Your task to perform on an android device: Search for 3d printer on AliExpress Image 0: 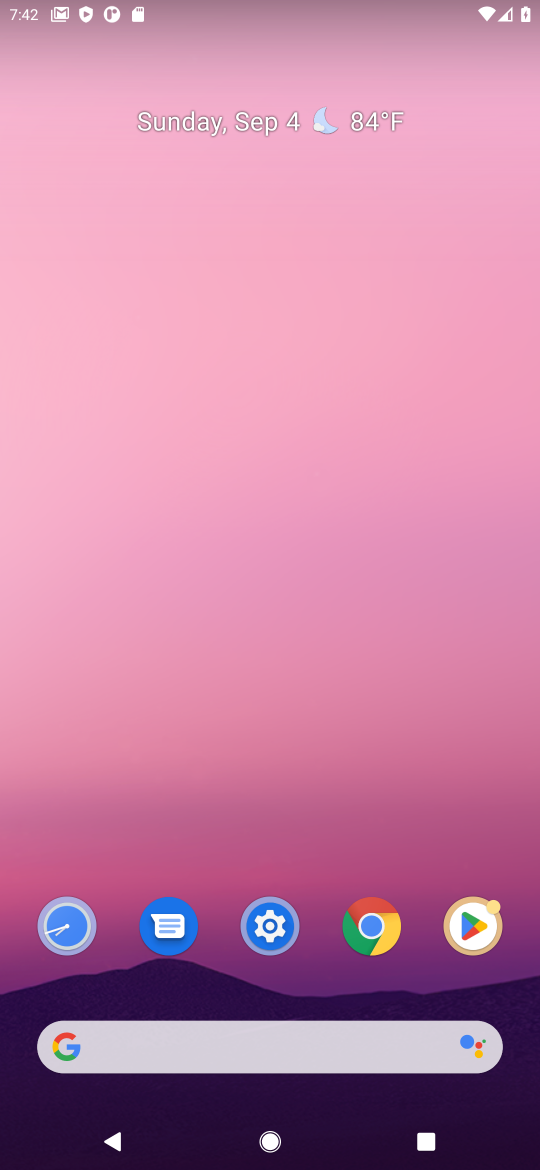
Step 0: click (294, 1039)
Your task to perform on an android device: Search for 3d printer on AliExpress Image 1: 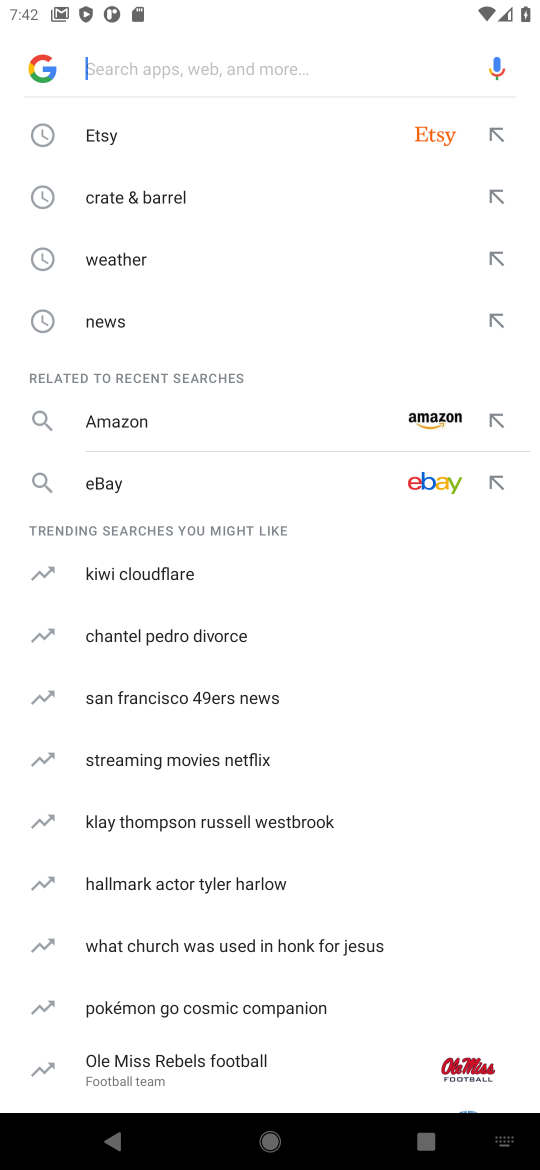
Step 1: type "aliexpress"
Your task to perform on an android device: Search for 3d printer on AliExpress Image 2: 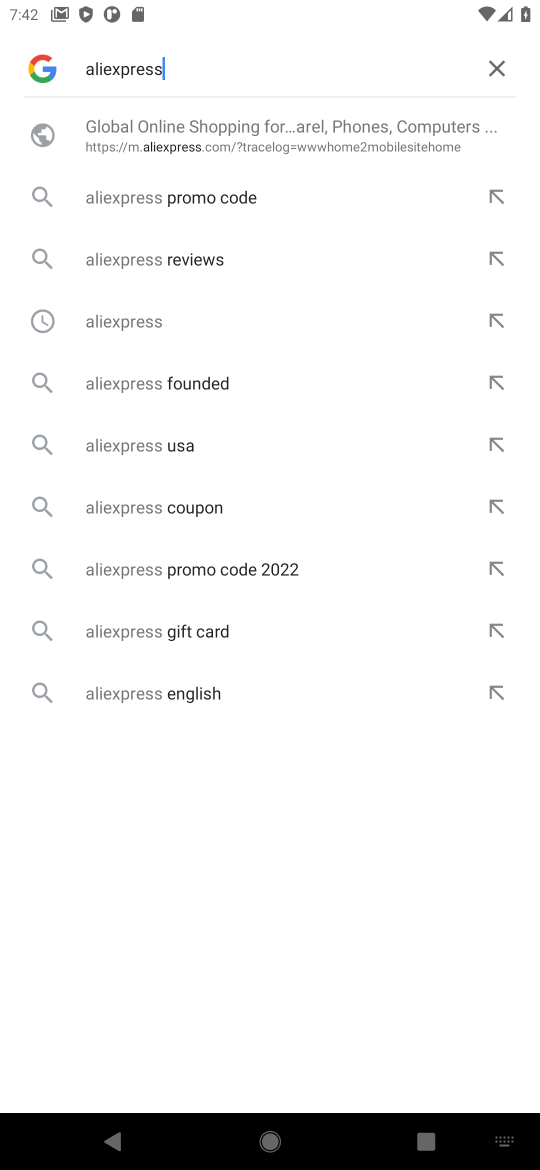
Step 2: click (135, 308)
Your task to perform on an android device: Search for 3d printer on AliExpress Image 3: 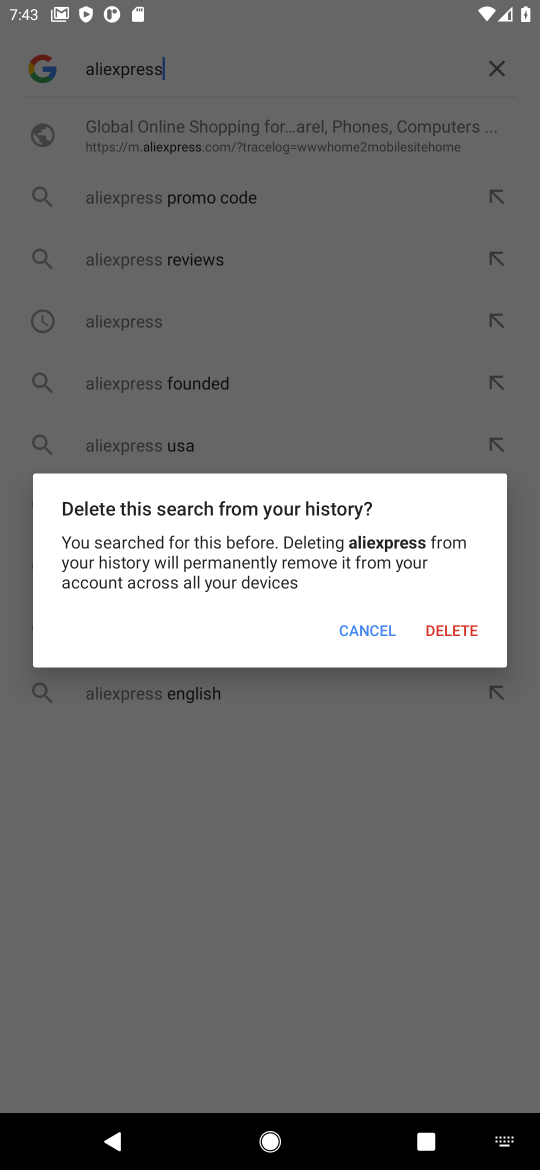
Step 3: click (352, 627)
Your task to perform on an android device: Search for 3d printer on AliExpress Image 4: 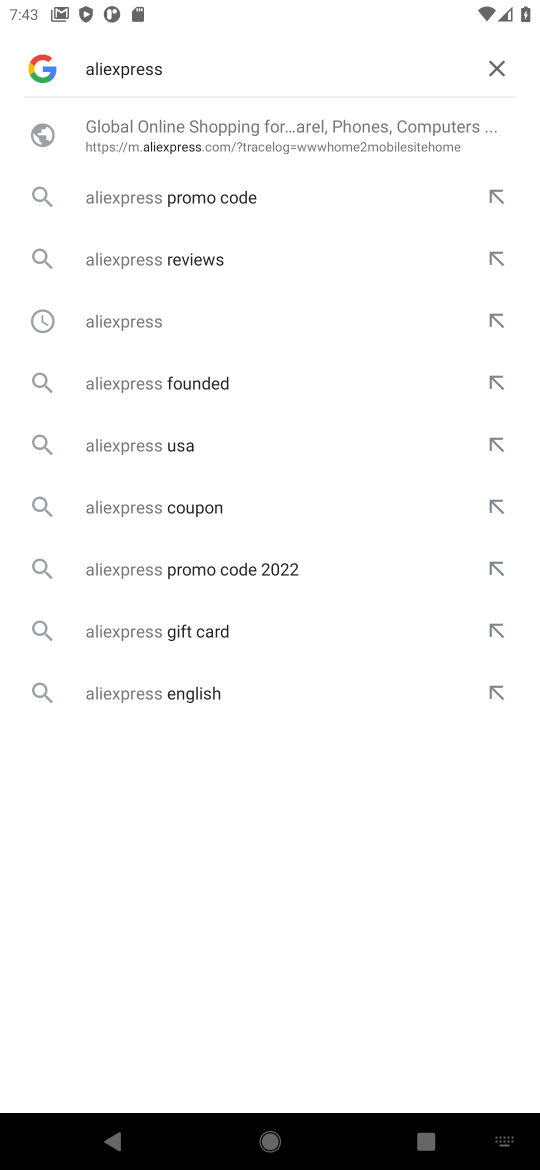
Step 4: click (135, 302)
Your task to perform on an android device: Search for 3d printer on AliExpress Image 5: 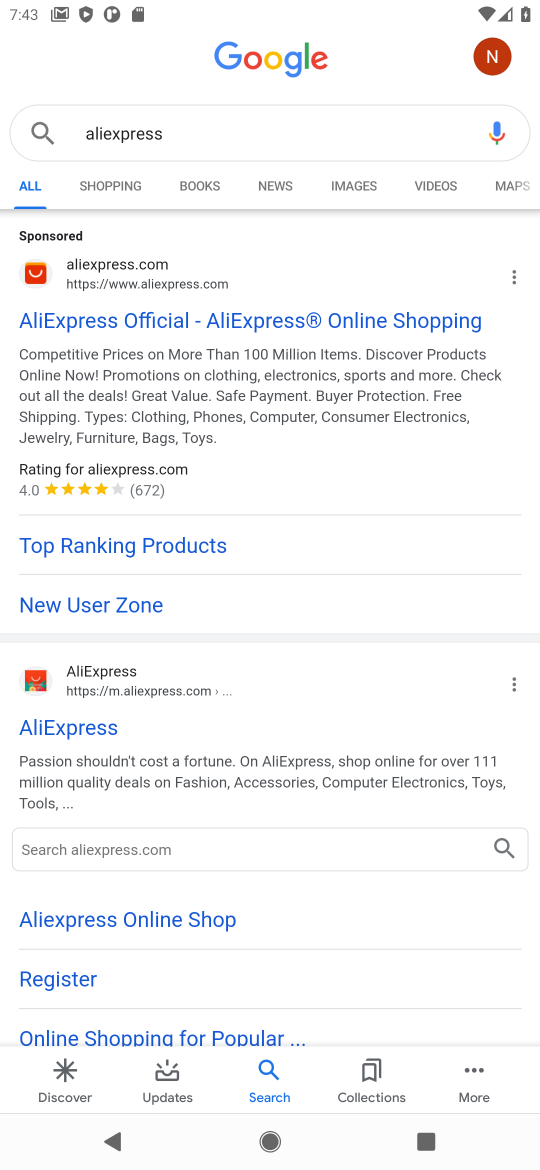
Step 5: click (263, 312)
Your task to perform on an android device: Search for 3d printer on AliExpress Image 6: 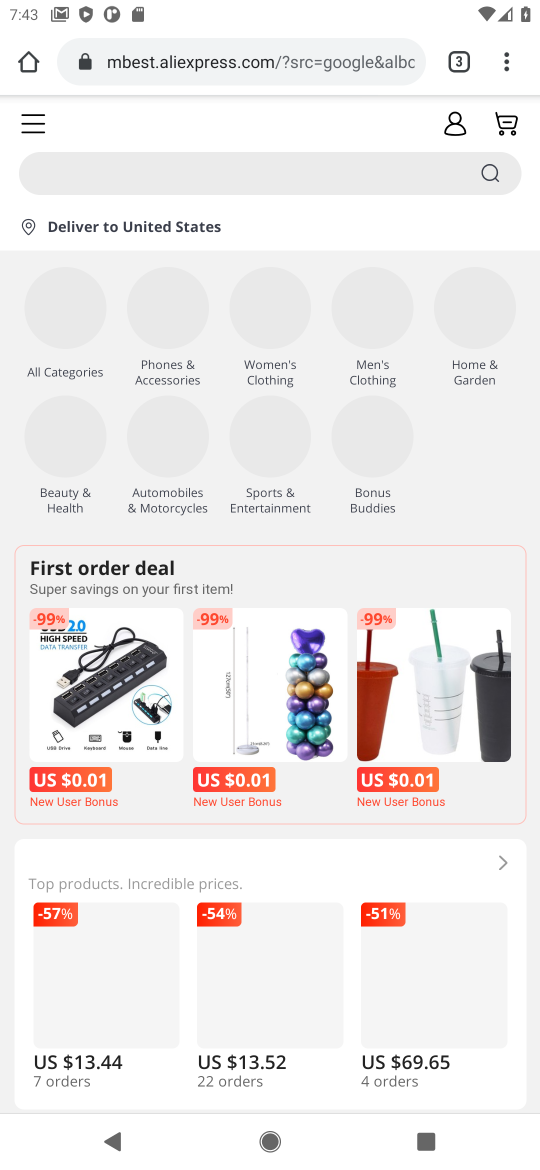
Step 6: click (208, 174)
Your task to perform on an android device: Search for 3d printer on AliExpress Image 7: 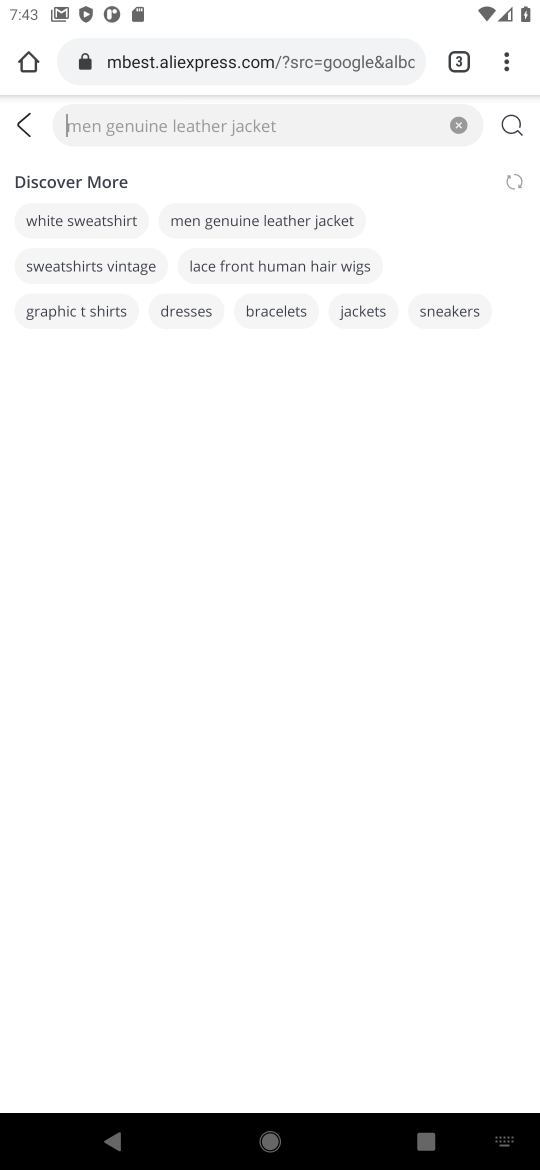
Step 7: type "3d printer"
Your task to perform on an android device: Search for 3d printer on AliExpress Image 8: 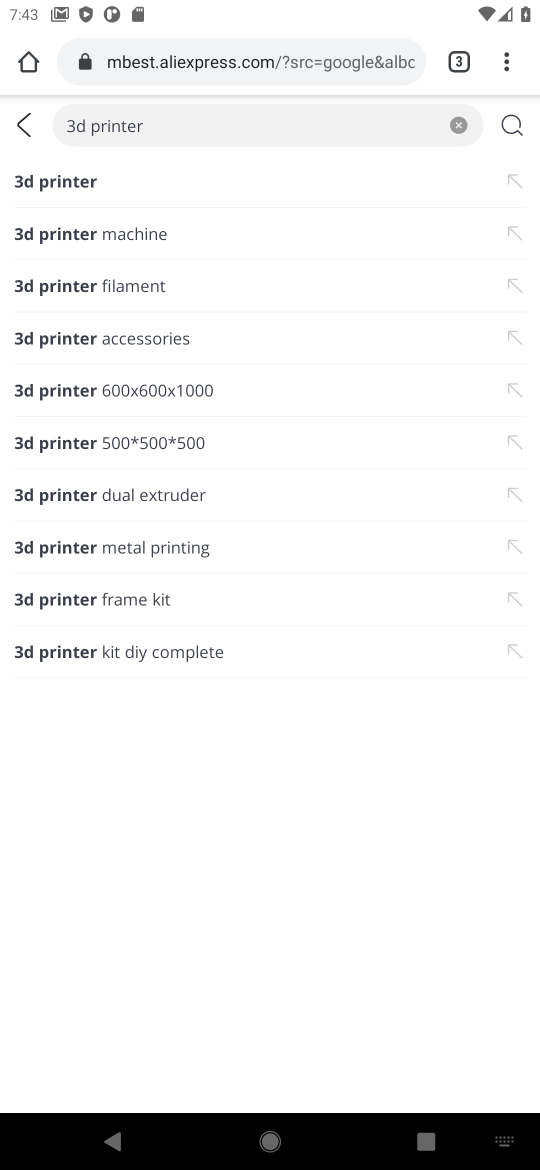
Step 8: click (54, 184)
Your task to perform on an android device: Search for 3d printer on AliExpress Image 9: 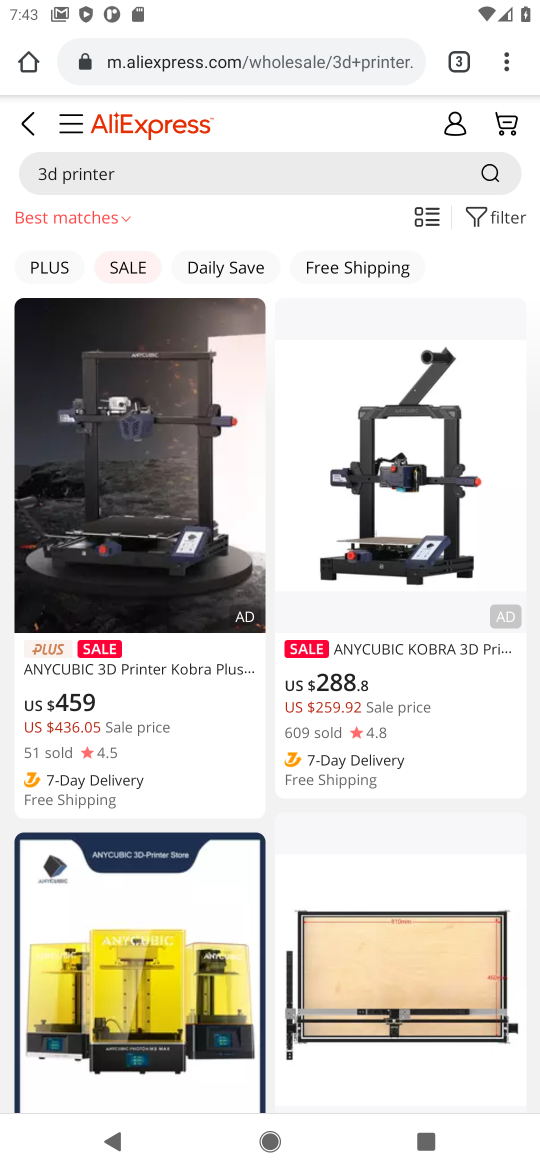
Step 9: task complete